Your task to perform on an android device: open the mobile data screen to see how much data has been used Image 0: 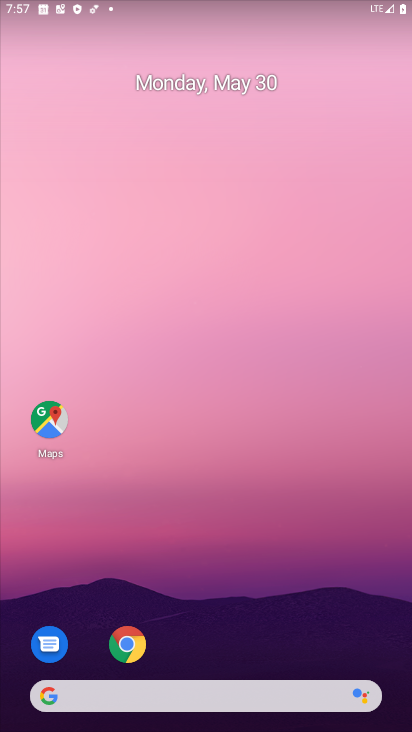
Step 0: drag from (258, 615) to (217, 124)
Your task to perform on an android device: open the mobile data screen to see how much data has been used Image 1: 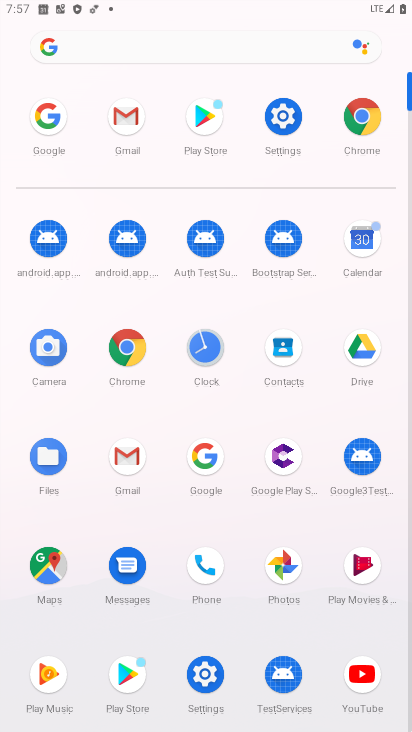
Step 1: click (284, 115)
Your task to perform on an android device: open the mobile data screen to see how much data has been used Image 2: 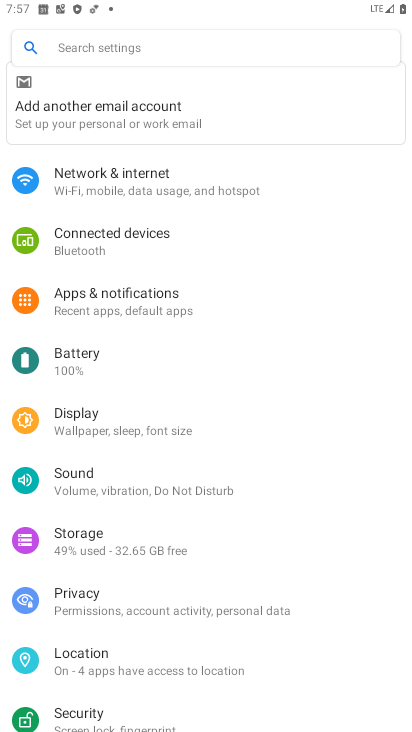
Step 2: click (156, 189)
Your task to perform on an android device: open the mobile data screen to see how much data has been used Image 3: 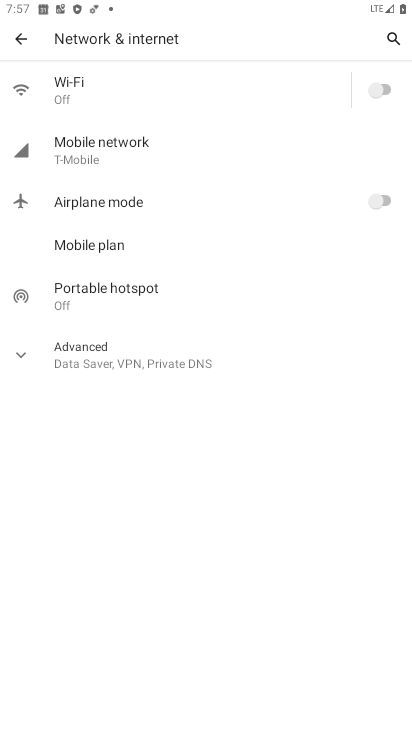
Step 3: click (127, 160)
Your task to perform on an android device: open the mobile data screen to see how much data has been used Image 4: 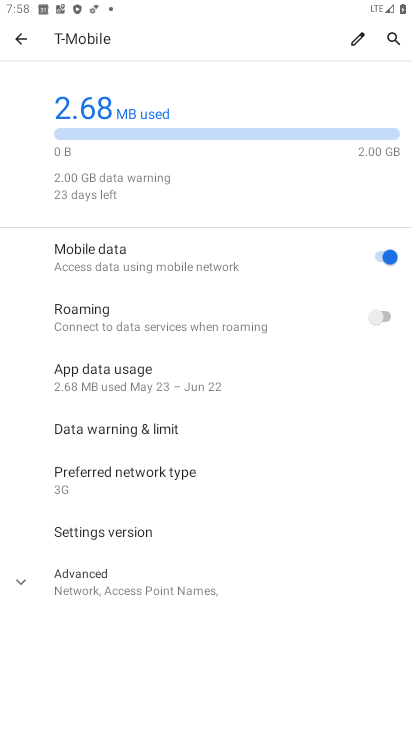
Step 4: task complete